Your task to perform on an android device: Search for Italian restaurants on Maps Image 0: 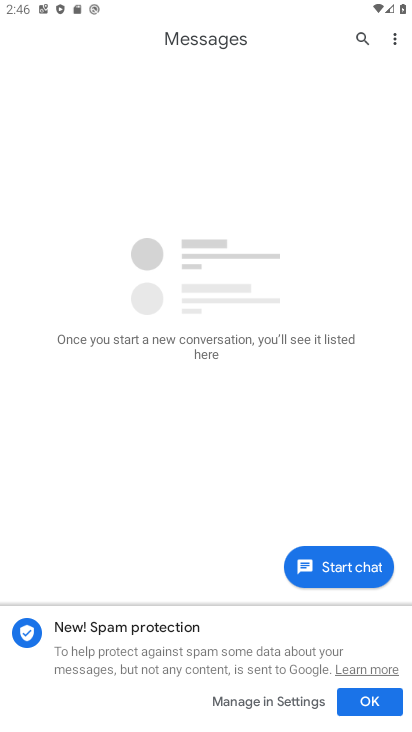
Step 0: press home button
Your task to perform on an android device: Search for Italian restaurants on Maps Image 1: 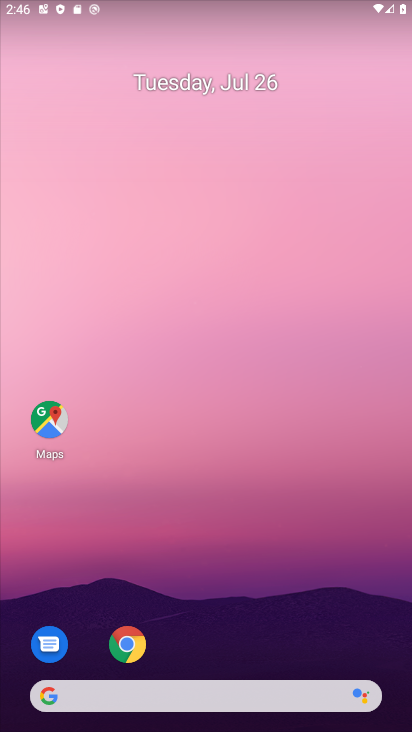
Step 1: click (44, 418)
Your task to perform on an android device: Search for Italian restaurants on Maps Image 2: 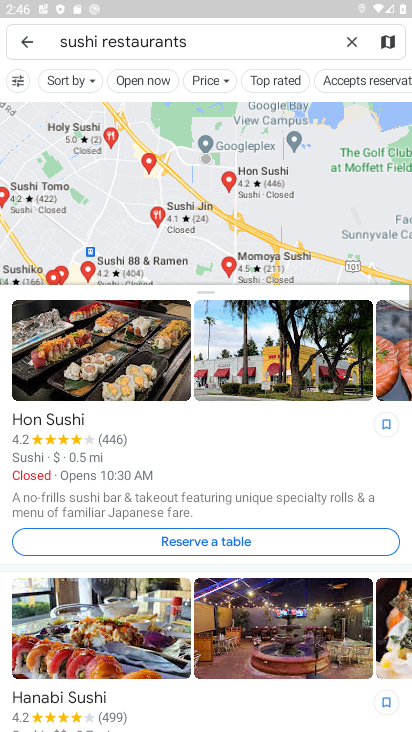
Step 2: click (16, 44)
Your task to perform on an android device: Search for Italian restaurants on Maps Image 3: 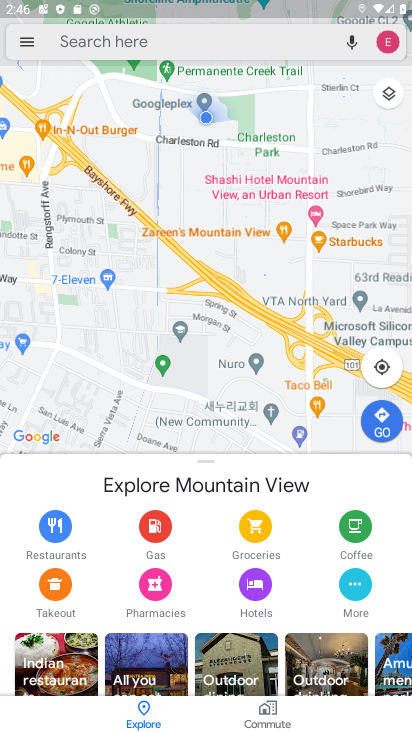
Step 3: type "Italian restaurants"
Your task to perform on an android device: Search for Italian restaurants on Maps Image 4: 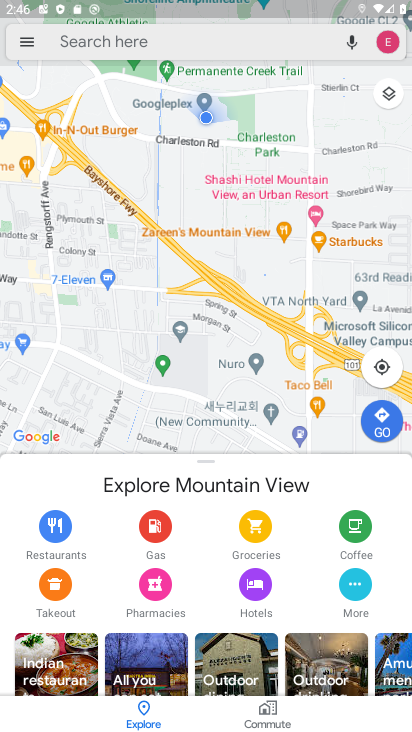
Step 4: click (142, 36)
Your task to perform on an android device: Search for Italian restaurants on Maps Image 5: 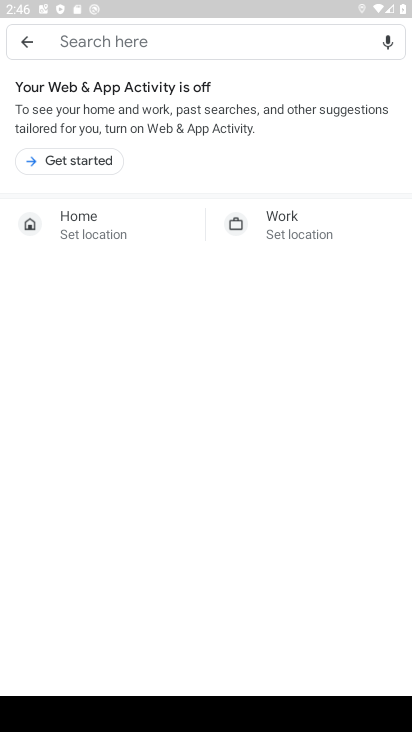
Step 5: click (144, 42)
Your task to perform on an android device: Search for Italian restaurants on Maps Image 6: 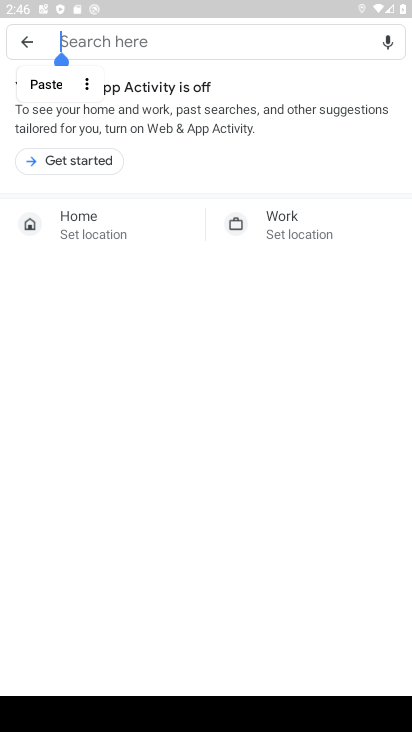
Step 6: type "Italian restaurants"
Your task to perform on an android device: Search for Italian restaurants on Maps Image 7: 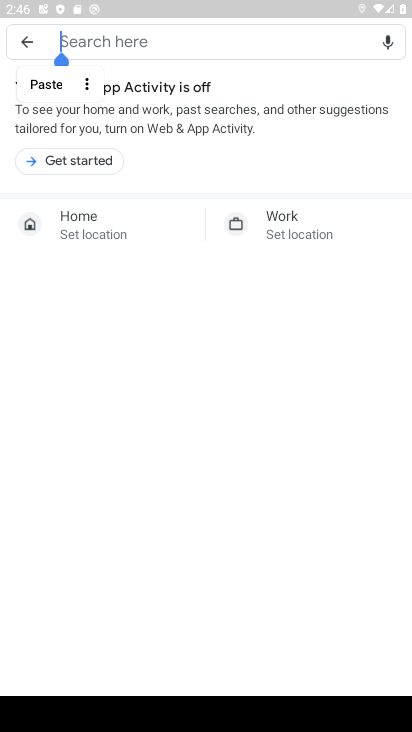
Step 7: click (133, 29)
Your task to perform on an android device: Search for Italian restaurants on Maps Image 8: 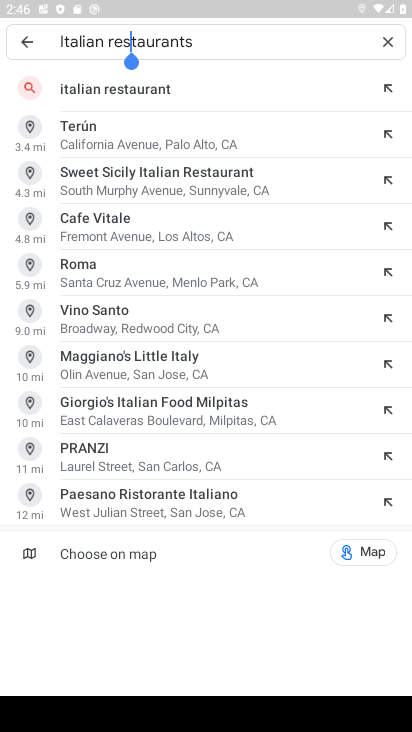
Step 8: click (122, 89)
Your task to perform on an android device: Search for Italian restaurants on Maps Image 9: 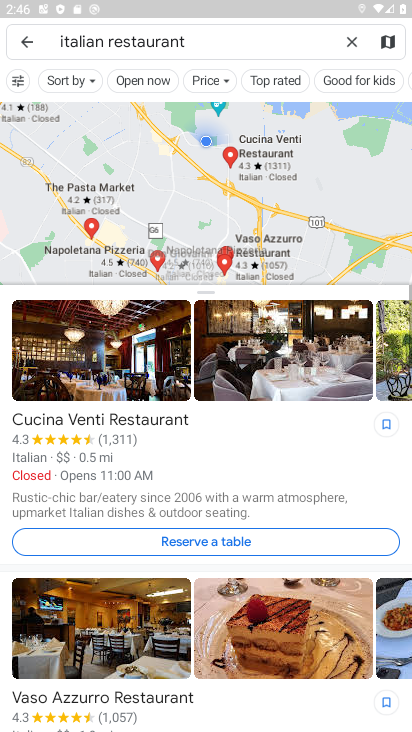
Step 9: task complete